Your task to perform on an android device: Add usb-c to usb-a to the cart on costco.com, then select checkout. Image 0: 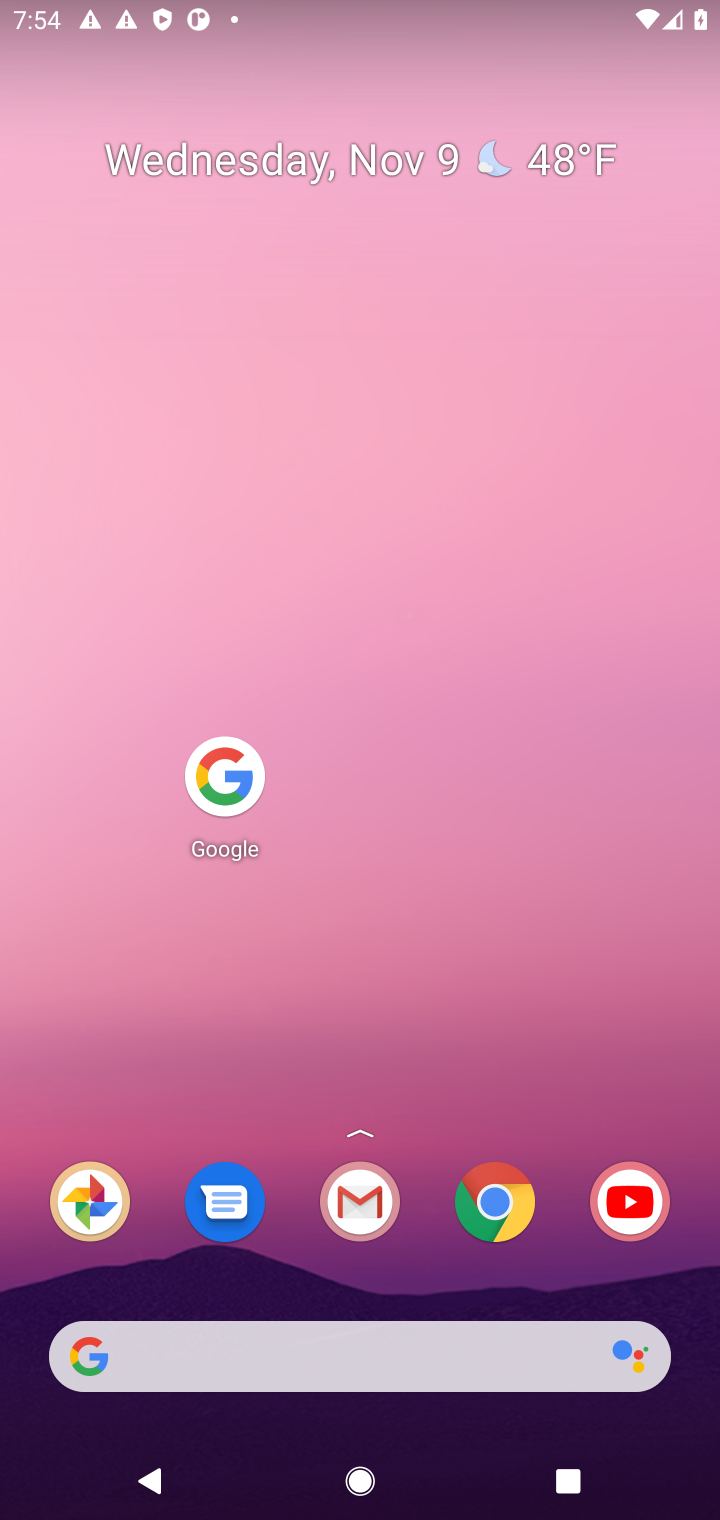
Step 0: click (224, 769)
Your task to perform on an android device: Add usb-c to usb-a to the cart on costco.com, then select checkout. Image 1: 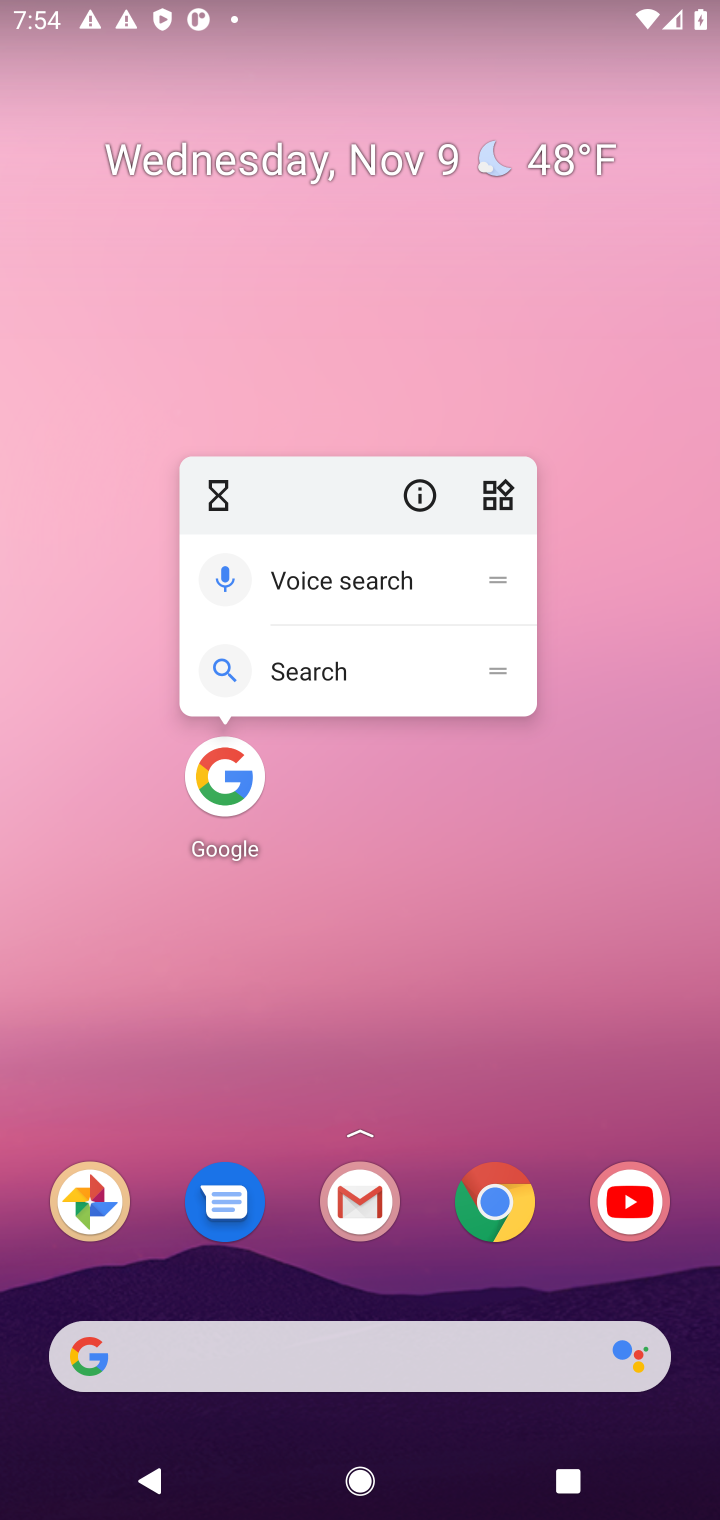
Step 1: click (233, 761)
Your task to perform on an android device: Add usb-c to usb-a to the cart on costco.com, then select checkout. Image 2: 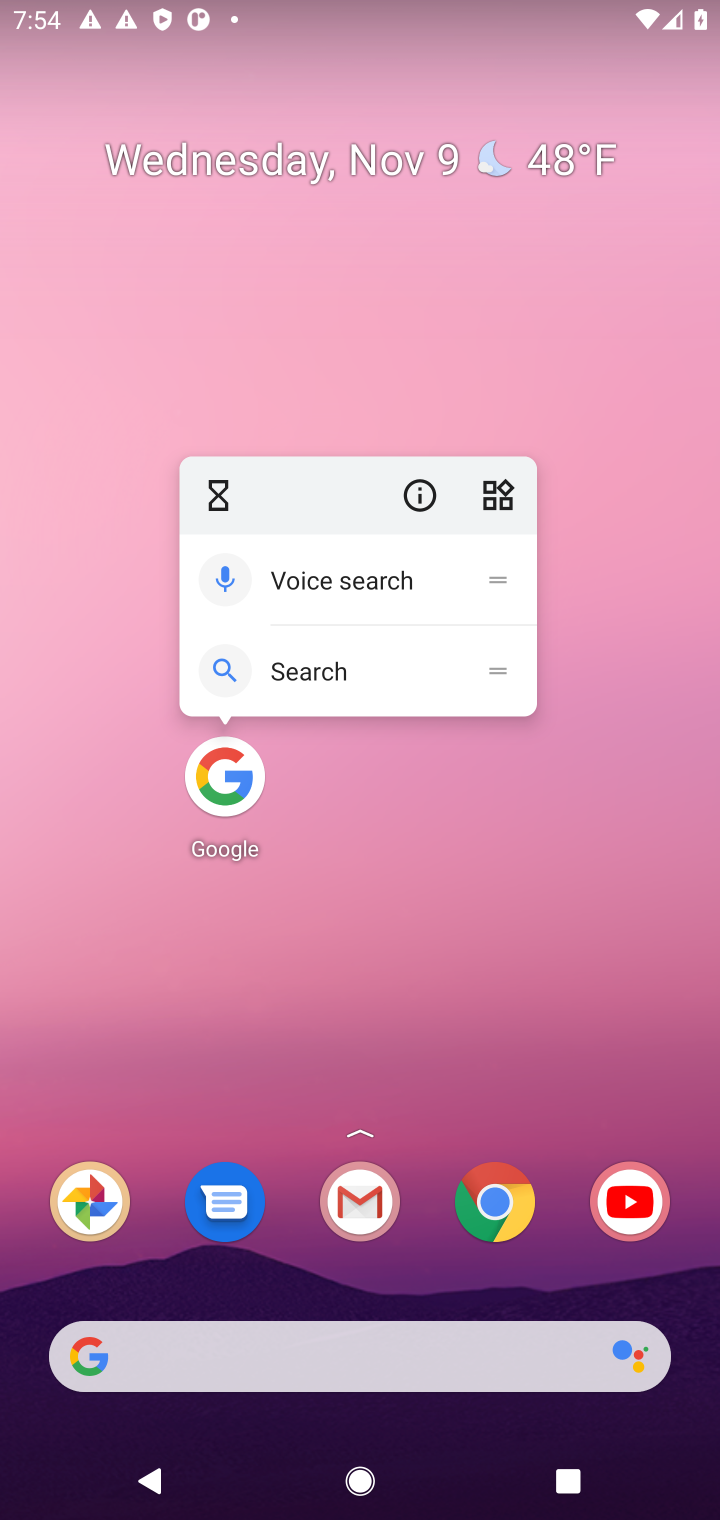
Step 2: click (233, 761)
Your task to perform on an android device: Add usb-c to usb-a to the cart on costco.com, then select checkout. Image 3: 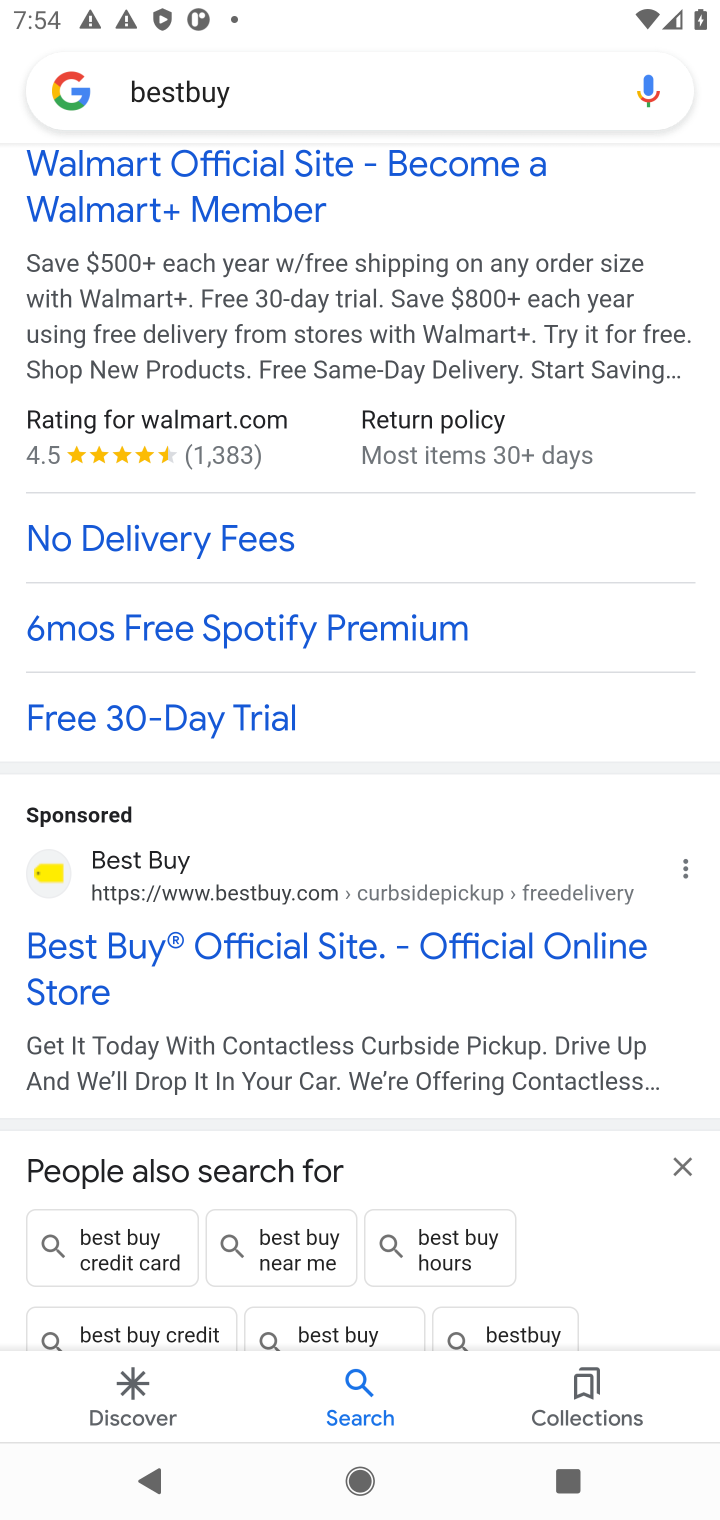
Step 3: click (293, 94)
Your task to perform on an android device: Add usb-c to usb-a to the cart on costco.com, then select checkout. Image 4: 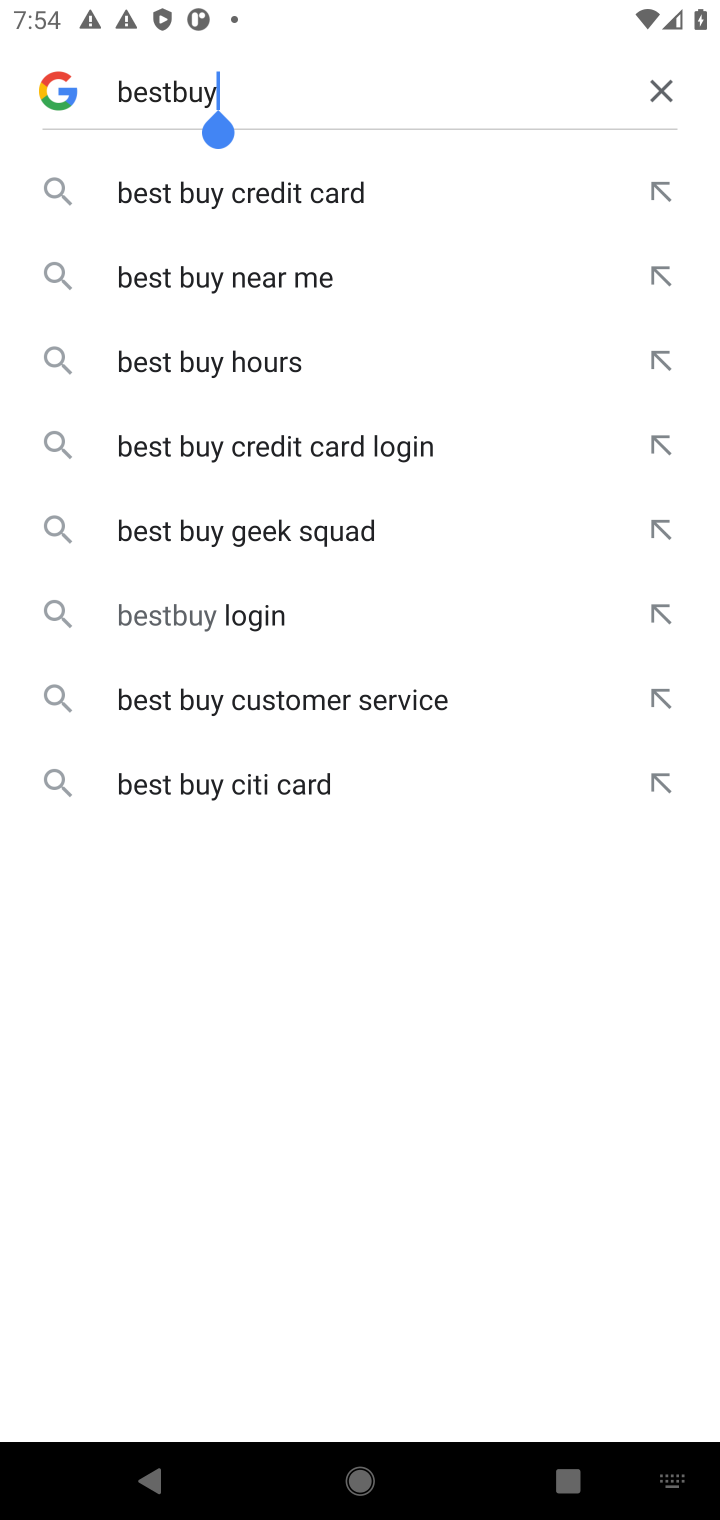
Step 4: click (659, 74)
Your task to perform on an android device: Add usb-c to usb-a to the cart on costco.com, then select checkout. Image 5: 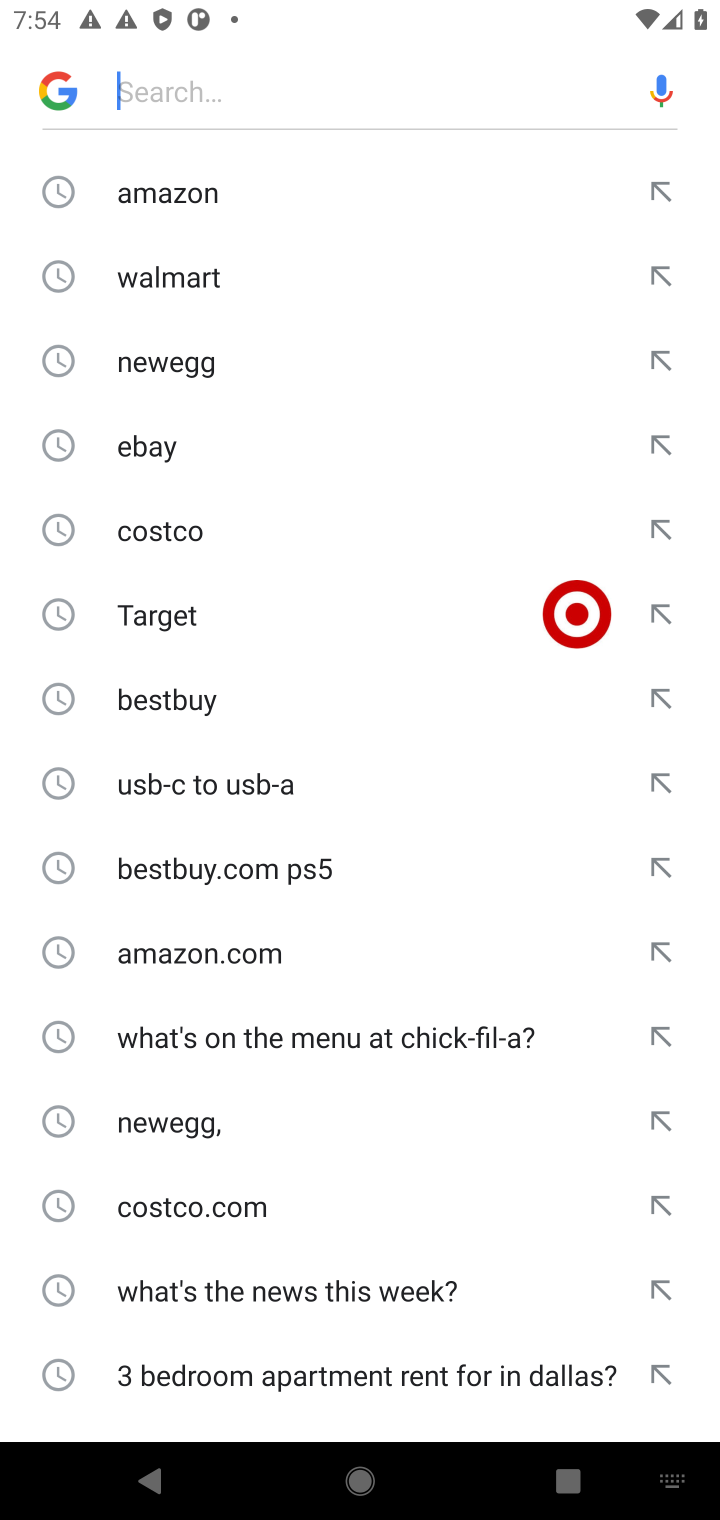
Step 5: click (131, 528)
Your task to perform on an android device: Add usb-c to usb-a to the cart on costco.com, then select checkout. Image 6: 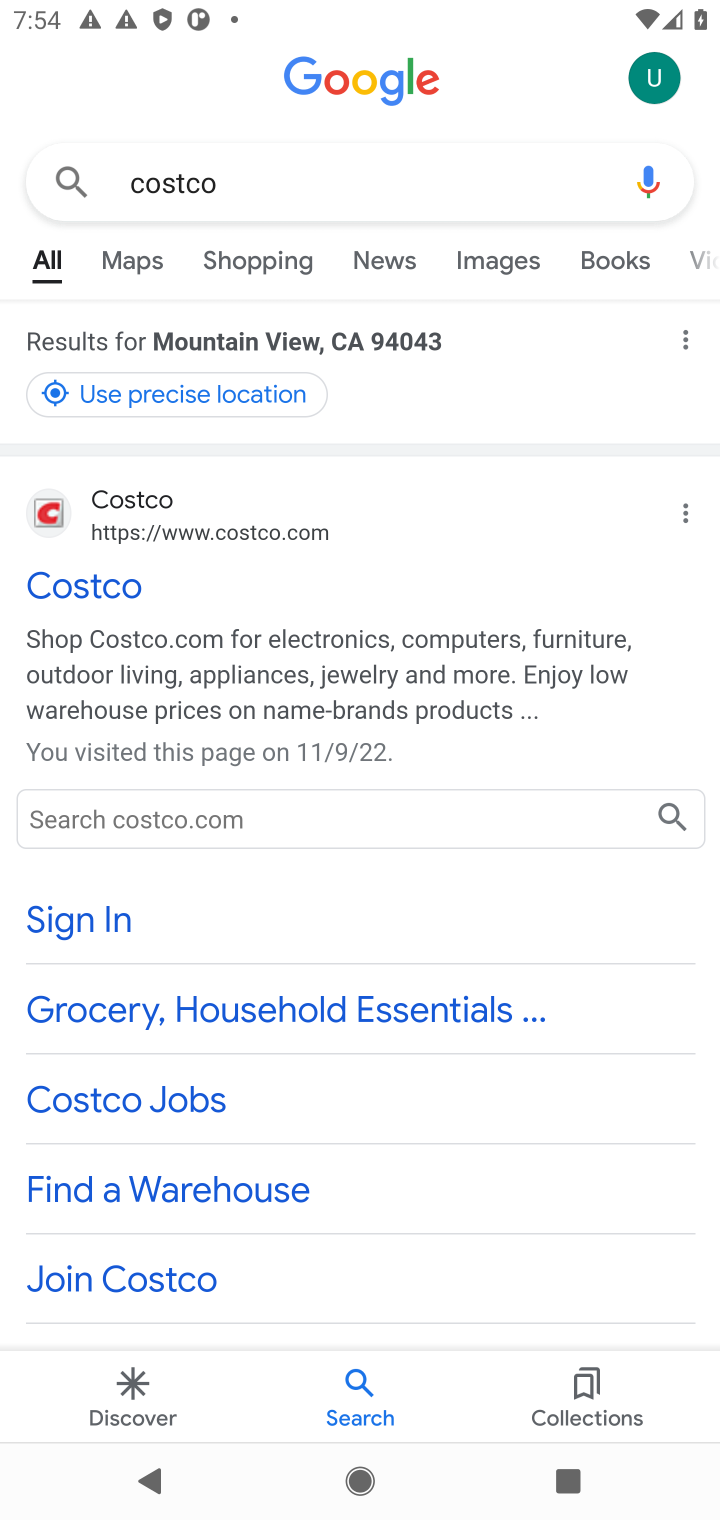
Step 6: click (84, 591)
Your task to perform on an android device: Add usb-c to usb-a to the cart on costco.com, then select checkout. Image 7: 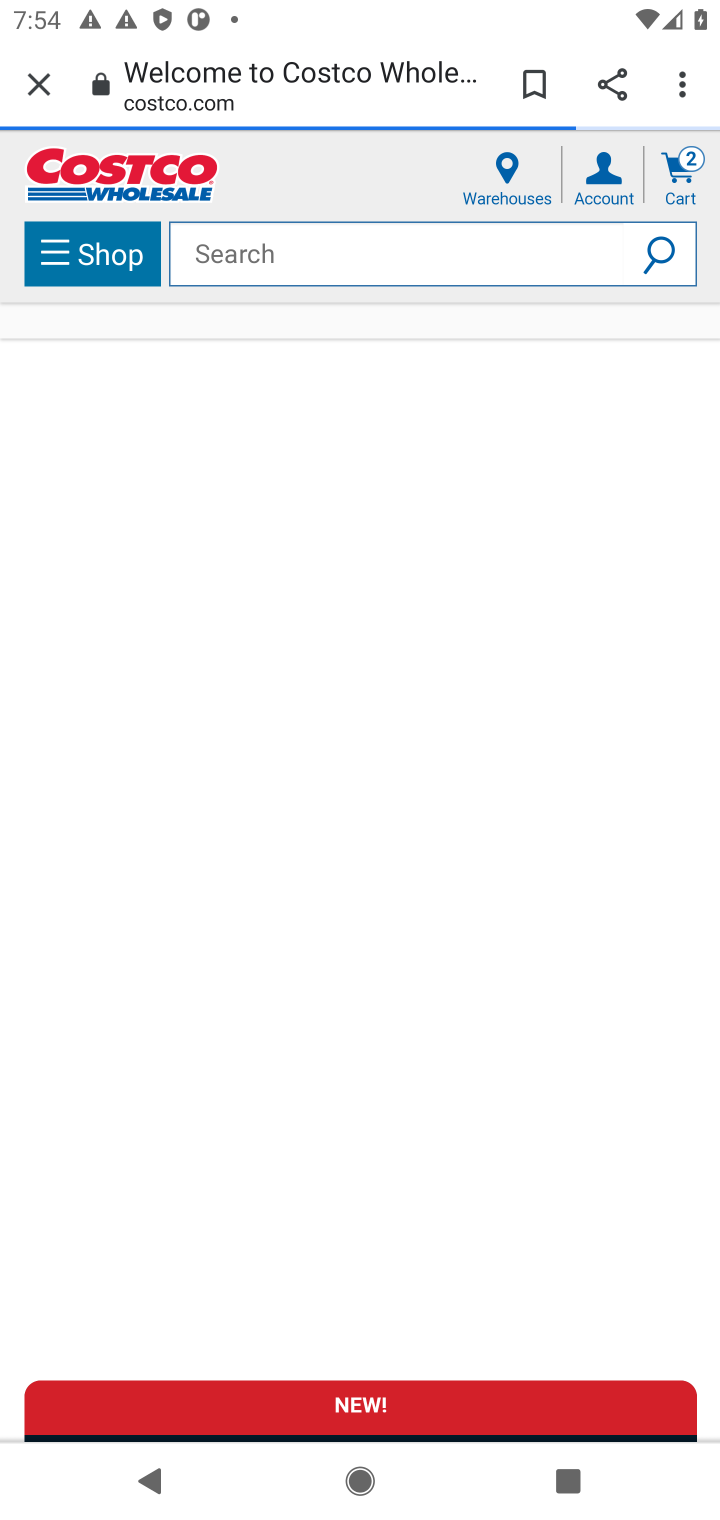
Step 7: click (319, 237)
Your task to perform on an android device: Add usb-c to usb-a to the cart on costco.com, then select checkout. Image 8: 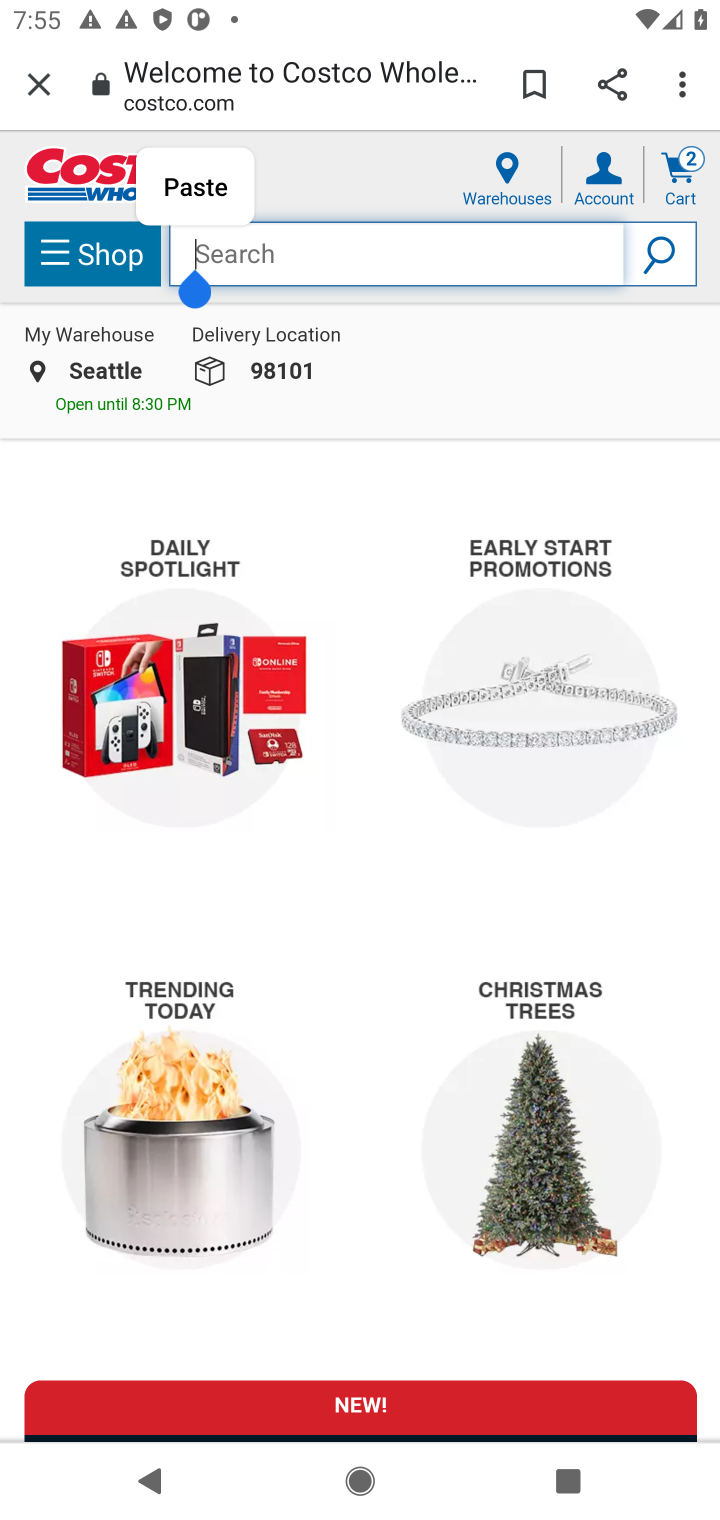
Step 8: type " usb-c to usb-a "
Your task to perform on an android device: Add usb-c to usb-a to the cart on costco.com, then select checkout. Image 9: 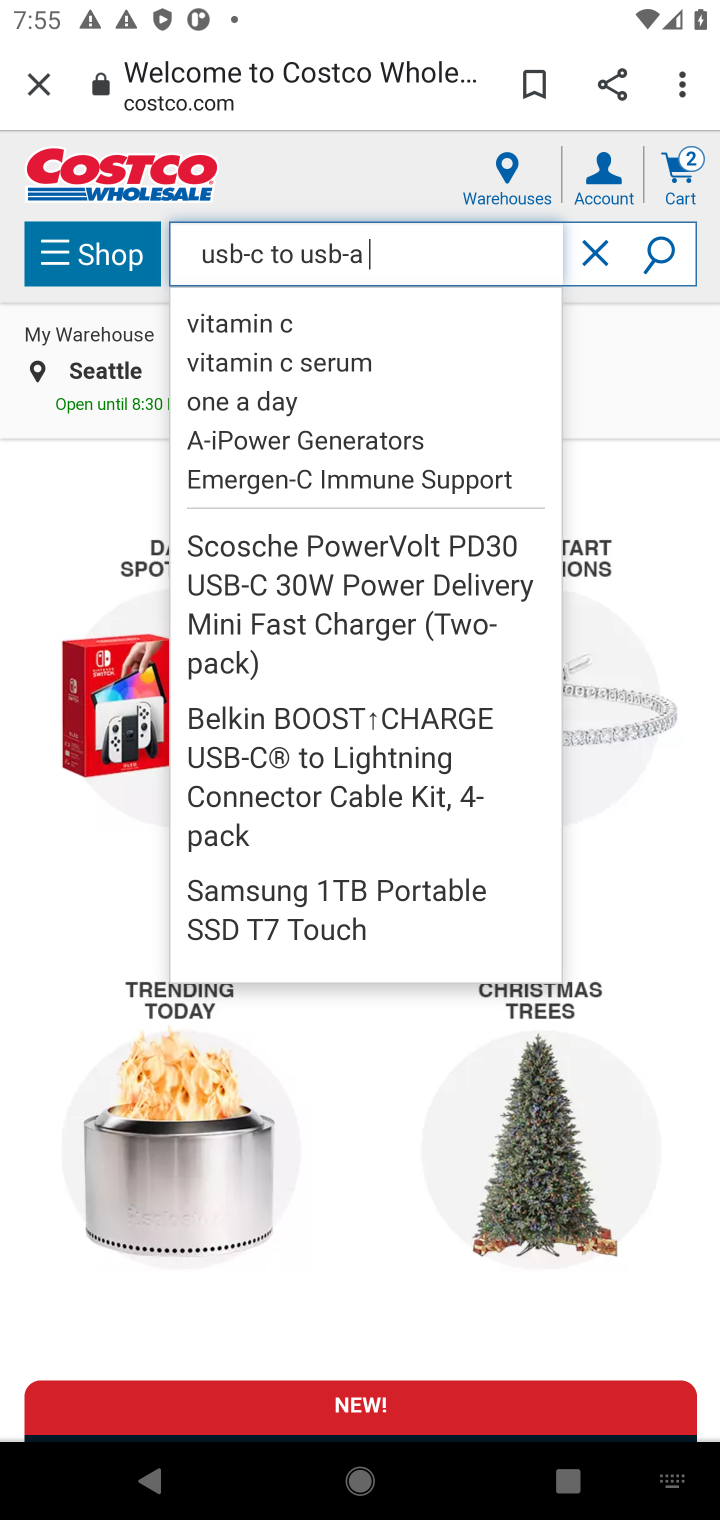
Step 9: press enter
Your task to perform on an android device: Add usb-c to usb-a to the cart on costco.com, then select checkout. Image 10: 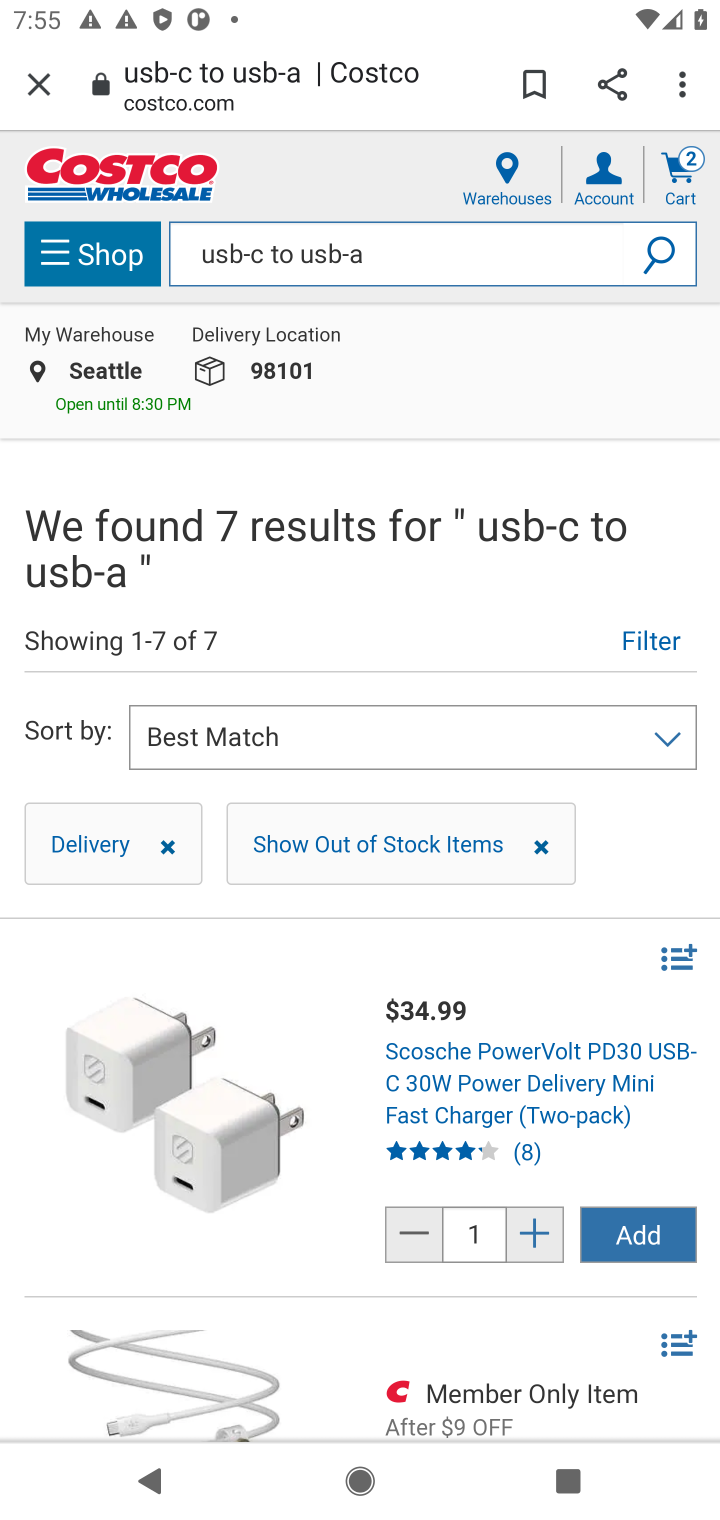
Step 10: click (487, 1092)
Your task to perform on an android device: Add usb-c to usb-a to the cart on costco.com, then select checkout. Image 11: 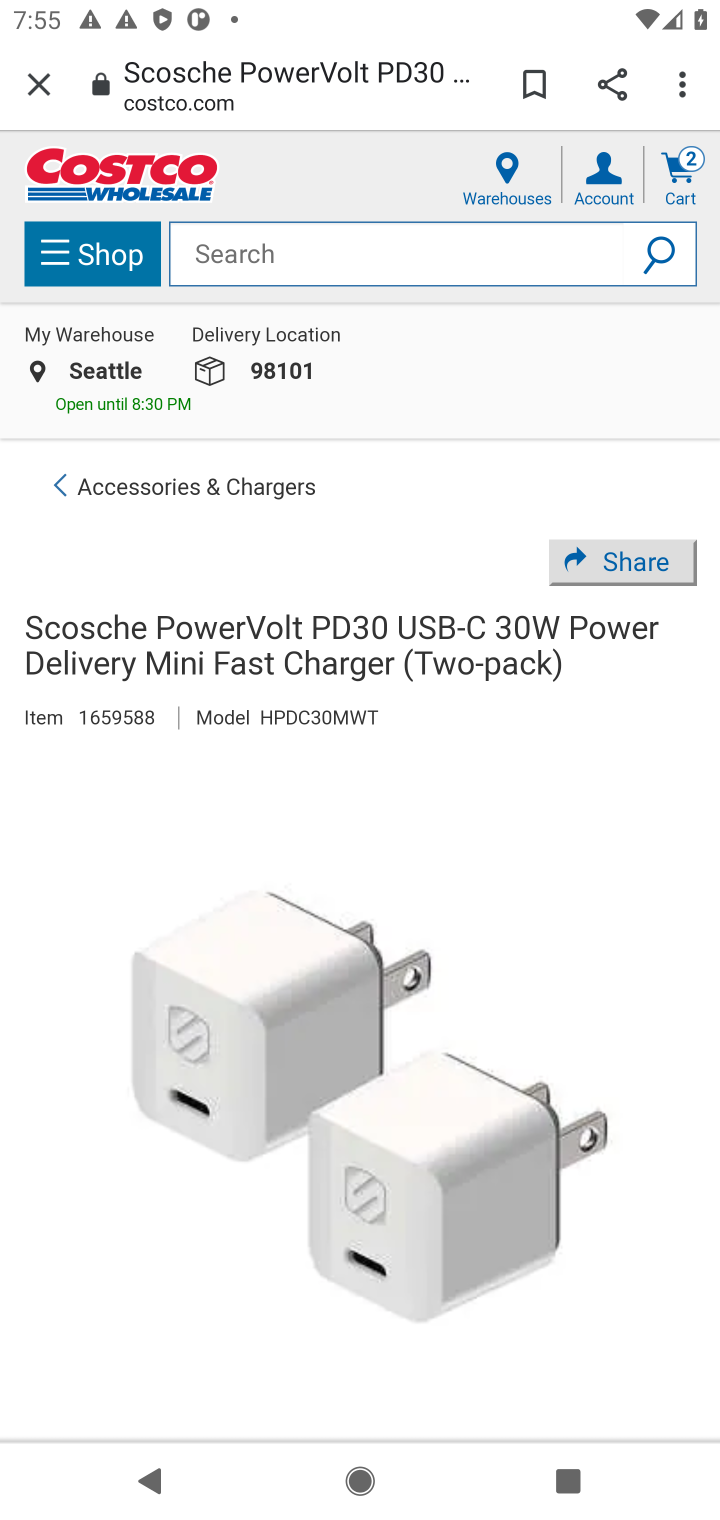
Step 11: task complete